Your task to perform on an android device: turn off translation in the chrome app Image 0: 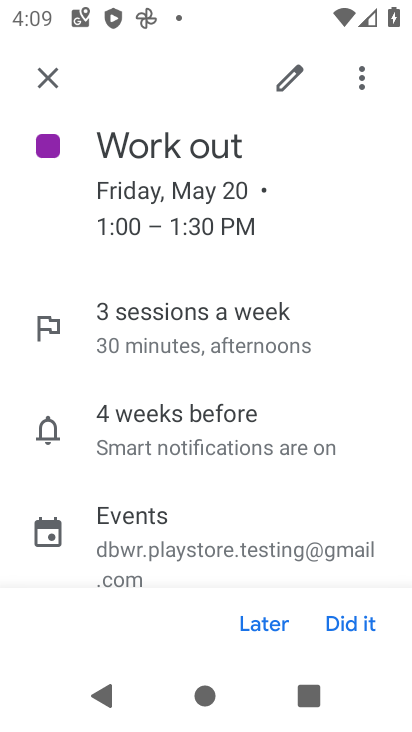
Step 0: press back button
Your task to perform on an android device: turn off translation in the chrome app Image 1: 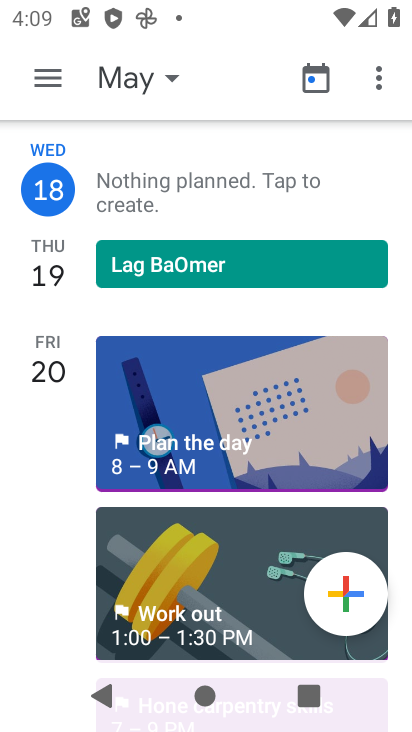
Step 1: press home button
Your task to perform on an android device: turn off translation in the chrome app Image 2: 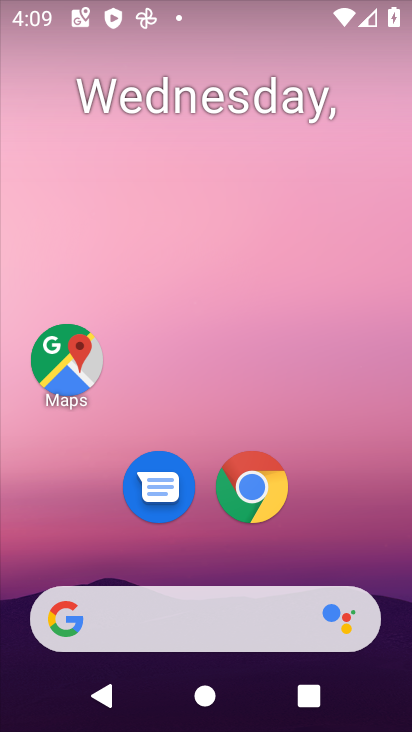
Step 2: drag from (363, 509) to (388, 71)
Your task to perform on an android device: turn off translation in the chrome app Image 3: 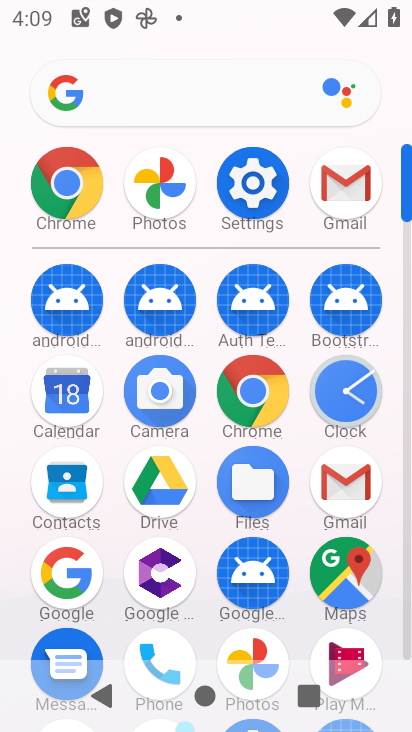
Step 3: click (273, 409)
Your task to perform on an android device: turn off translation in the chrome app Image 4: 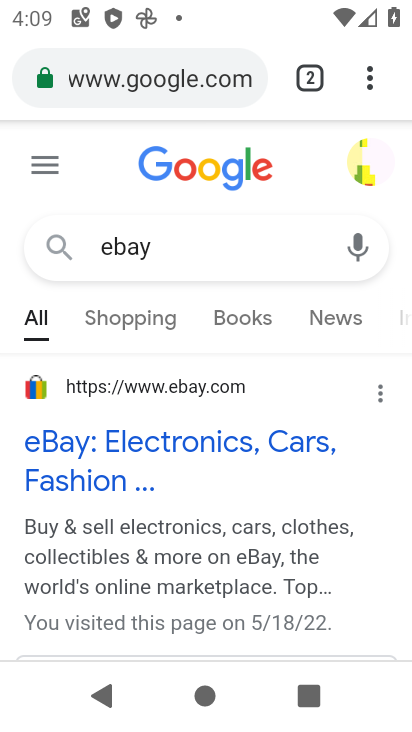
Step 4: click (369, 83)
Your task to perform on an android device: turn off translation in the chrome app Image 5: 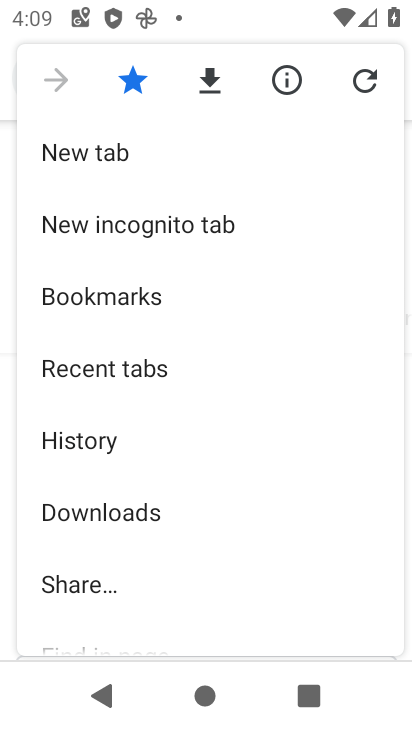
Step 5: drag from (316, 453) to (332, 368)
Your task to perform on an android device: turn off translation in the chrome app Image 6: 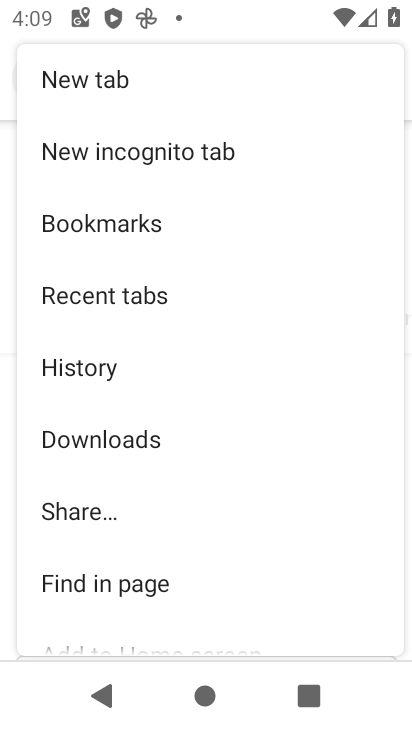
Step 6: drag from (324, 506) to (323, 415)
Your task to perform on an android device: turn off translation in the chrome app Image 7: 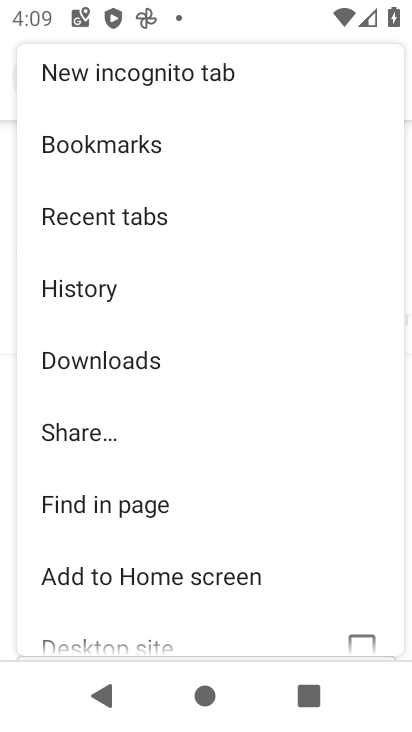
Step 7: drag from (306, 441) to (304, 370)
Your task to perform on an android device: turn off translation in the chrome app Image 8: 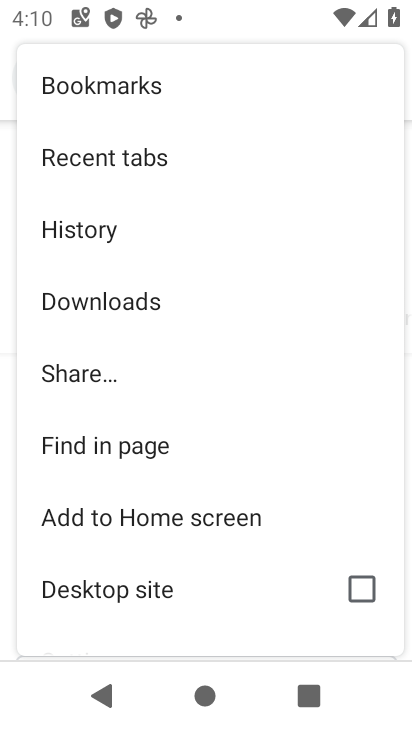
Step 8: drag from (281, 497) to (286, 414)
Your task to perform on an android device: turn off translation in the chrome app Image 9: 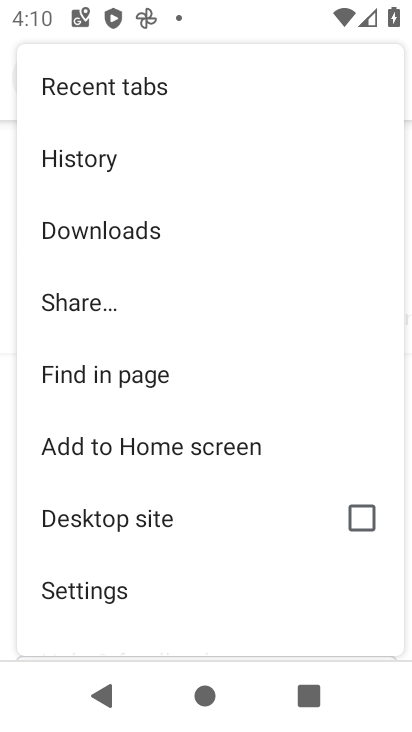
Step 9: drag from (267, 561) to (292, 450)
Your task to perform on an android device: turn off translation in the chrome app Image 10: 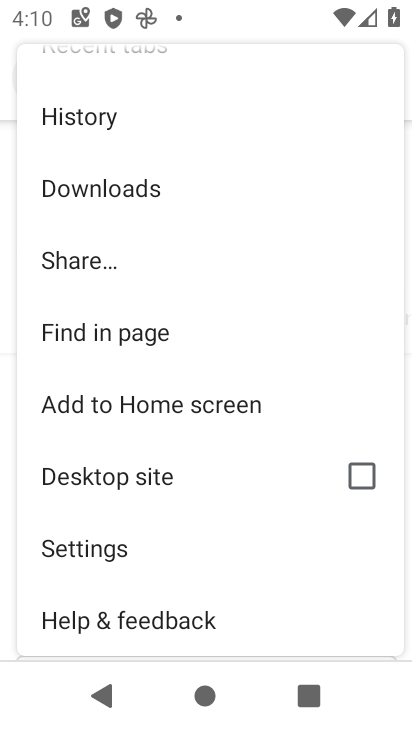
Step 10: click (127, 559)
Your task to perform on an android device: turn off translation in the chrome app Image 11: 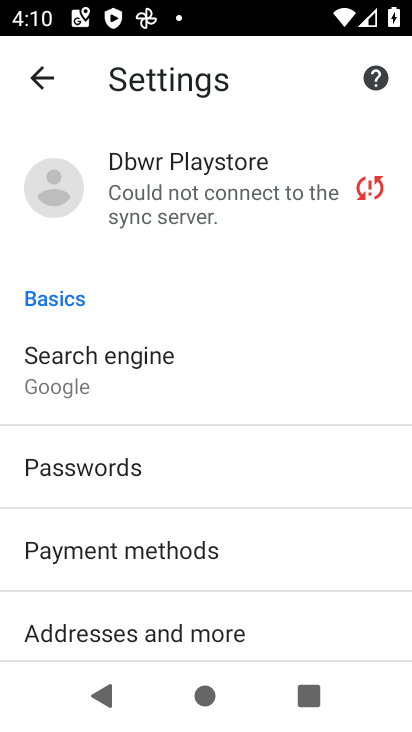
Step 11: drag from (312, 577) to (317, 493)
Your task to perform on an android device: turn off translation in the chrome app Image 12: 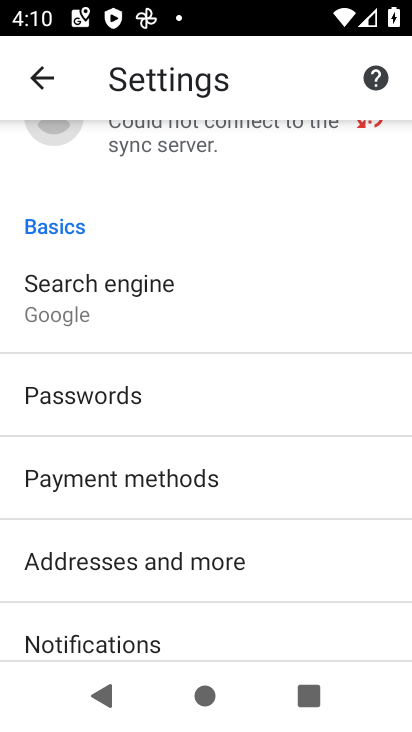
Step 12: drag from (315, 583) to (327, 460)
Your task to perform on an android device: turn off translation in the chrome app Image 13: 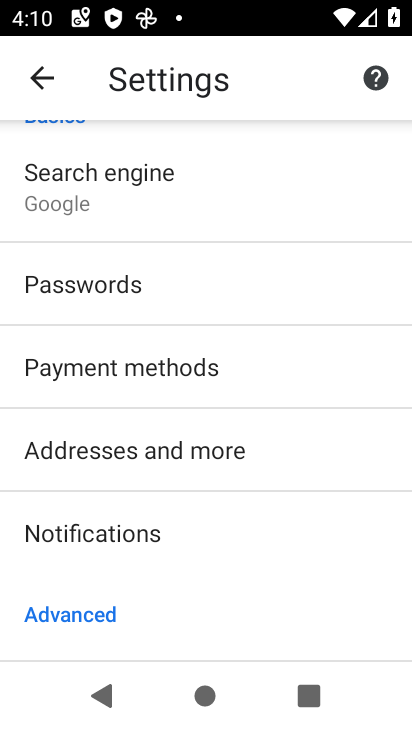
Step 13: drag from (322, 571) to (338, 479)
Your task to perform on an android device: turn off translation in the chrome app Image 14: 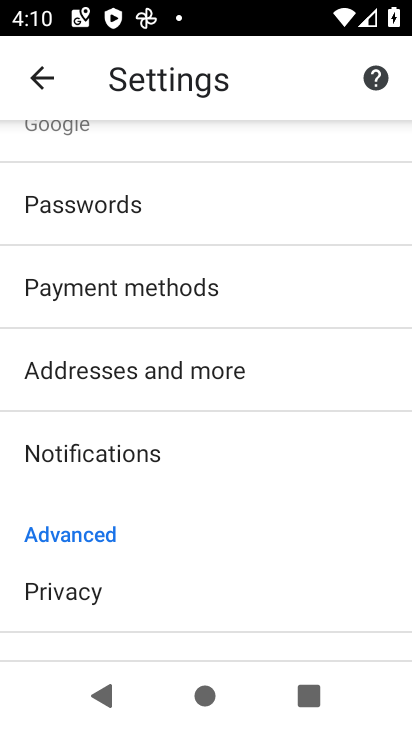
Step 14: drag from (315, 603) to (339, 472)
Your task to perform on an android device: turn off translation in the chrome app Image 15: 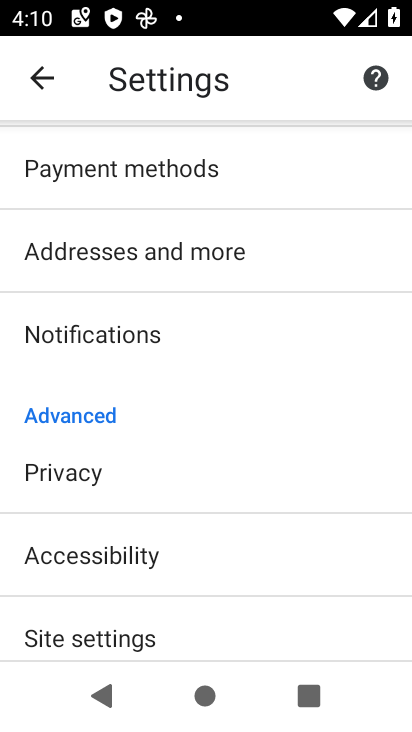
Step 15: drag from (302, 578) to (301, 428)
Your task to perform on an android device: turn off translation in the chrome app Image 16: 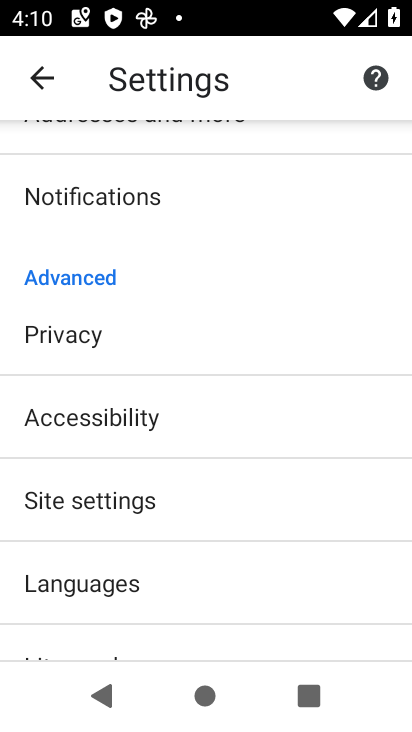
Step 16: click (262, 596)
Your task to perform on an android device: turn off translation in the chrome app Image 17: 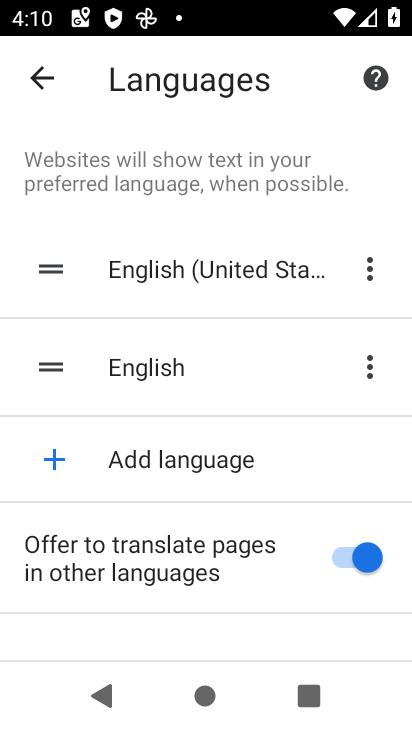
Step 17: click (340, 559)
Your task to perform on an android device: turn off translation in the chrome app Image 18: 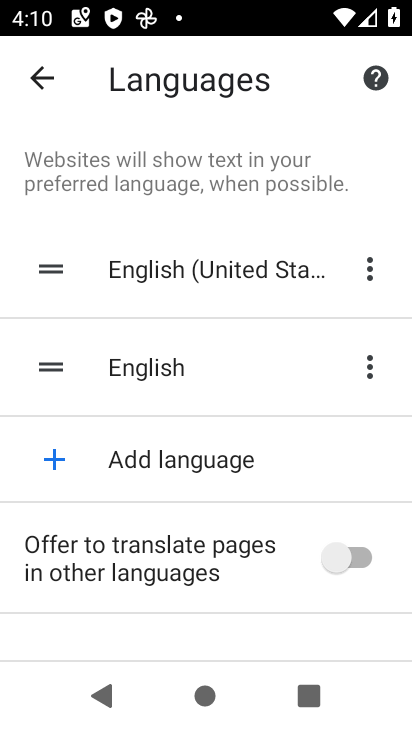
Step 18: task complete